Your task to perform on an android device: toggle notification dots Image 0: 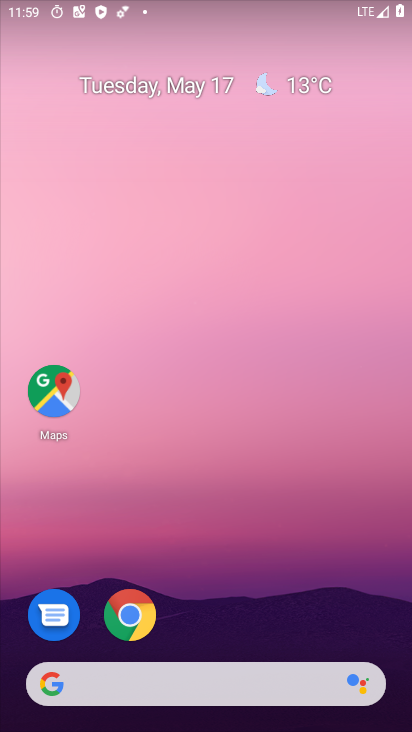
Step 0: press home button
Your task to perform on an android device: toggle notification dots Image 1: 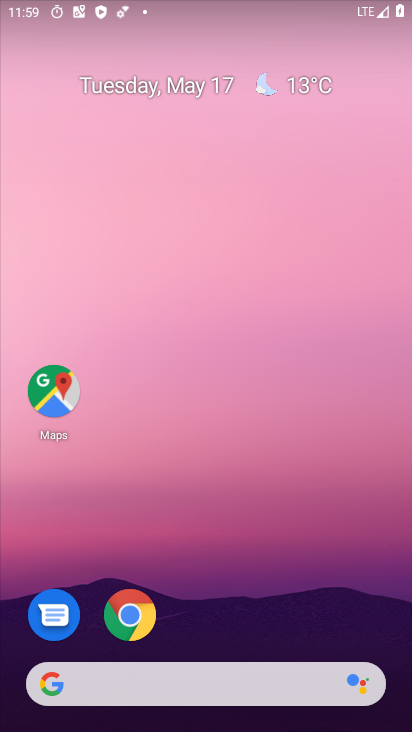
Step 1: drag from (191, 693) to (299, 218)
Your task to perform on an android device: toggle notification dots Image 2: 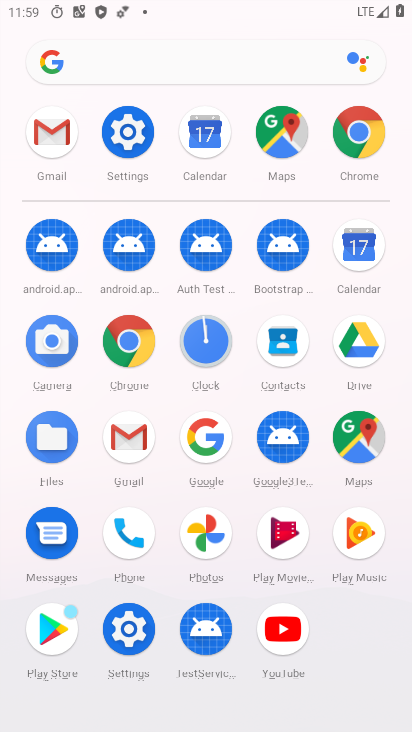
Step 2: click (135, 138)
Your task to perform on an android device: toggle notification dots Image 3: 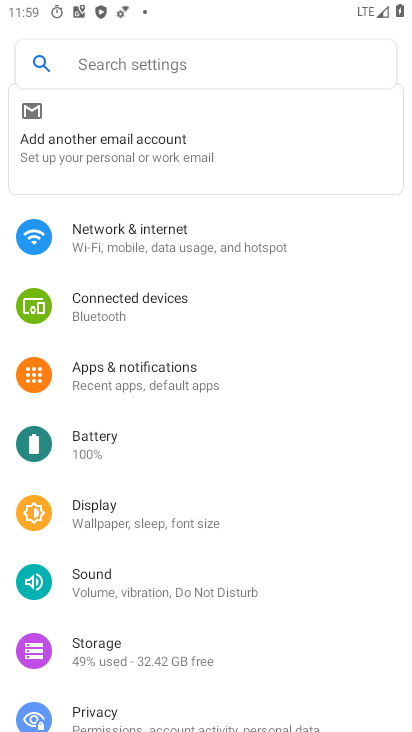
Step 3: click (190, 369)
Your task to perform on an android device: toggle notification dots Image 4: 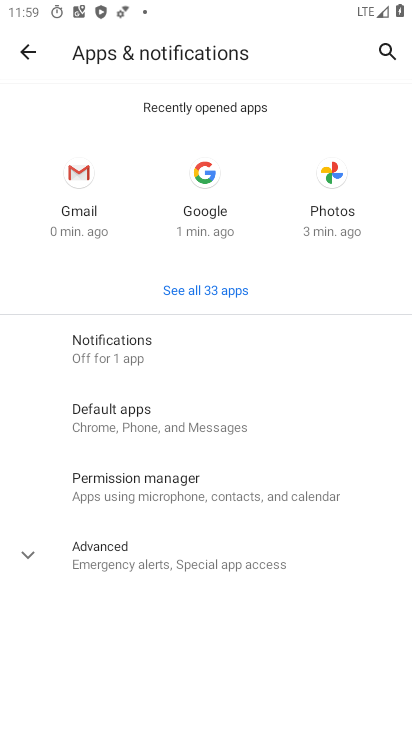
Step 4: click (133, 358)
Your task to perform on an android device: toggle notification dots Image 5: 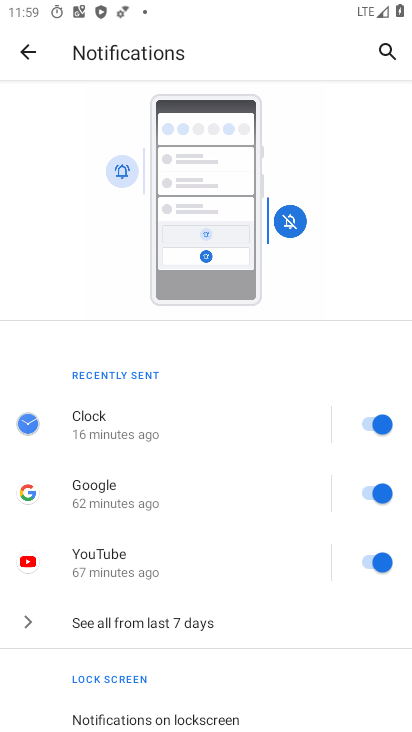
Step 5: drag from (203, 616) to (312, 288)
Your task to perform on an android device: toggle notification dots Image 6: 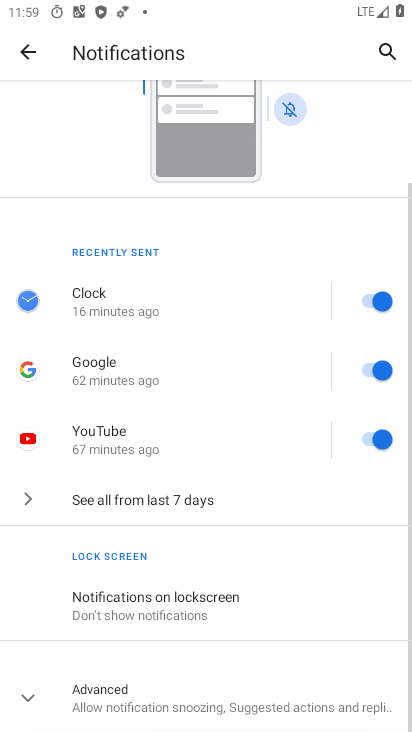
Step 6: click (126, 681)
Your task to perform on an android device: toggle notification dots Image 7: 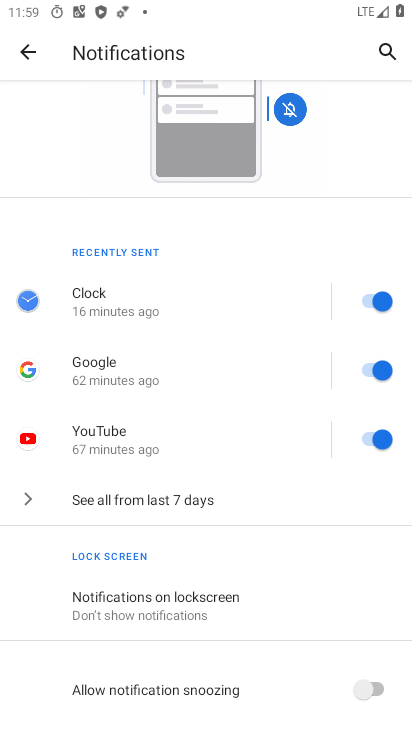
Step 7: drag from (239, 635) to (336, 330)
Your task to perform on an android device: toggle notification dots Image 8: 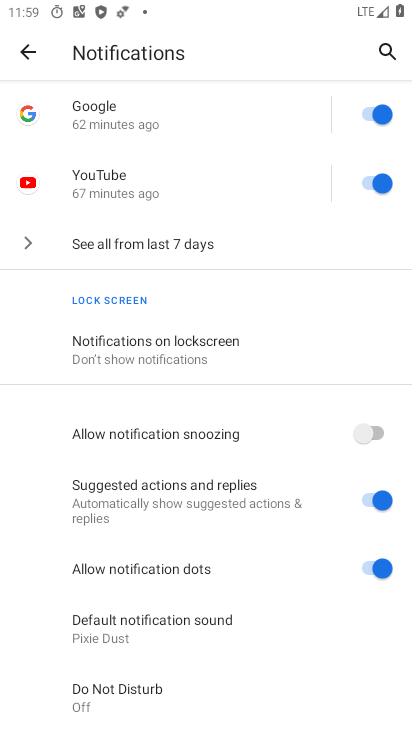
Step 8: click (371, 571)
Your task to perform on an android device: toggle notification dots Image 9: 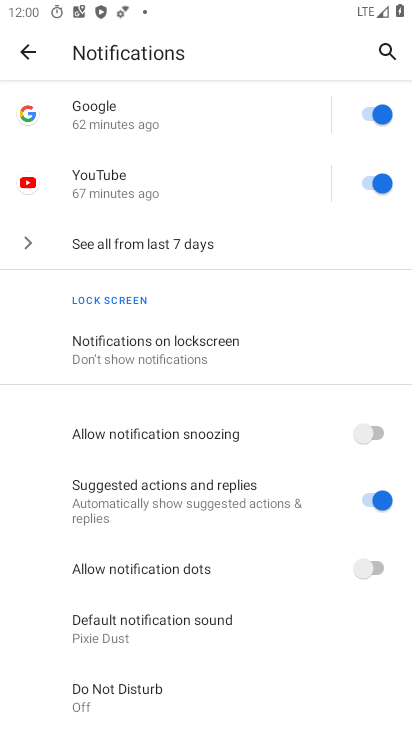
Step 9: task complete